Your task to perform on an android device: Add "amazon basics triple a" to the cart on costco Image 0: 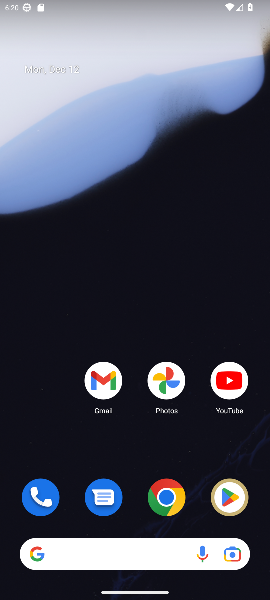
Step 0: click (52, 546)
Your task to perform on an android device: Add "amazon basics triple a" to the cart on costco Image 1: 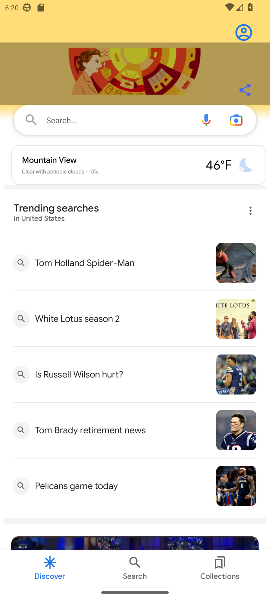
Step 1: click (63, 118)
Your task to perform on an android device: Add "amazon basics triple a" to the cart on costco Image 2: 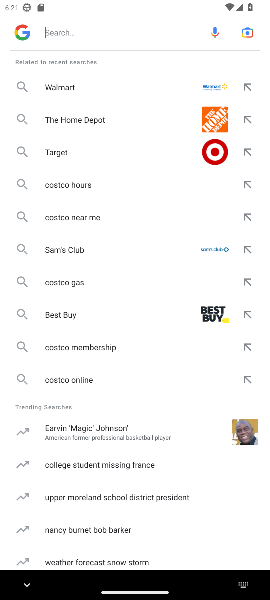
Step 2: type "costco"
Your task to perform on an android device: Add "amazon basics triple a" to the cart on costco Image 3: 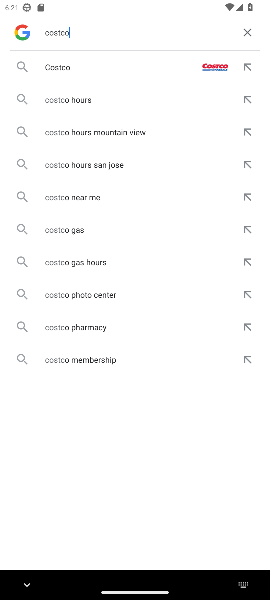
Step 3: press enter
Your task to perform on an android device: Add "amazon basics triple a" to the cart on costco Image 4: 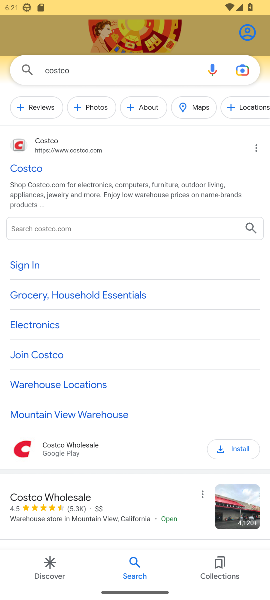
Step 4: click (22, 165)
Your task to perform on an android device: Add "amazon basics triple a" to the cart on costco Image 5: 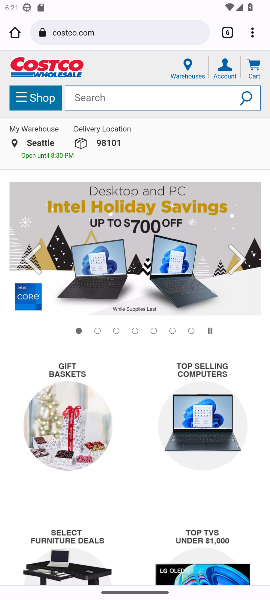
Step 5: click (82, 85)
Your task to perform on an android device: Add "amazon basics triple a" to the cart on costco Image 6: 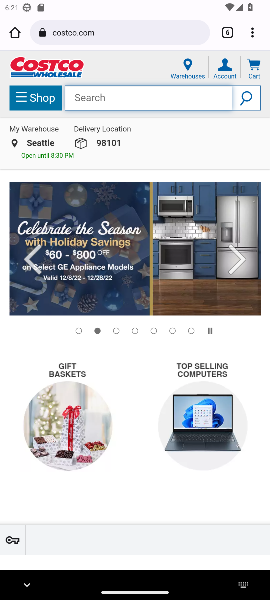
Step 6: click (100, 102)
Your task to perform on an android device: Add "amazon basics triple a" to the cart on costco Image 7: 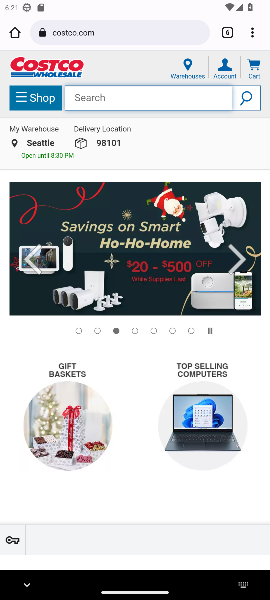
Step 7: type "amazon basics triple a"
Your task to perform on an android device: Add "amazon basics triple a" to the cart on costco Image 8: 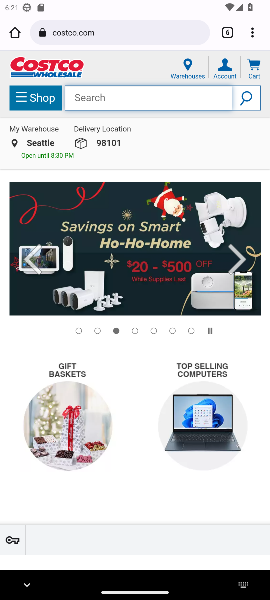
Step 8: press enter
Your task to perform on an android device: Add "amazon basics triple a" to the cart on costco Image 9: 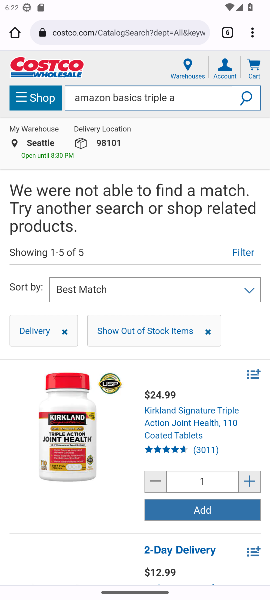
Step 9: task complete